Your task to perform on an android device: Open Google Maps Image 0: 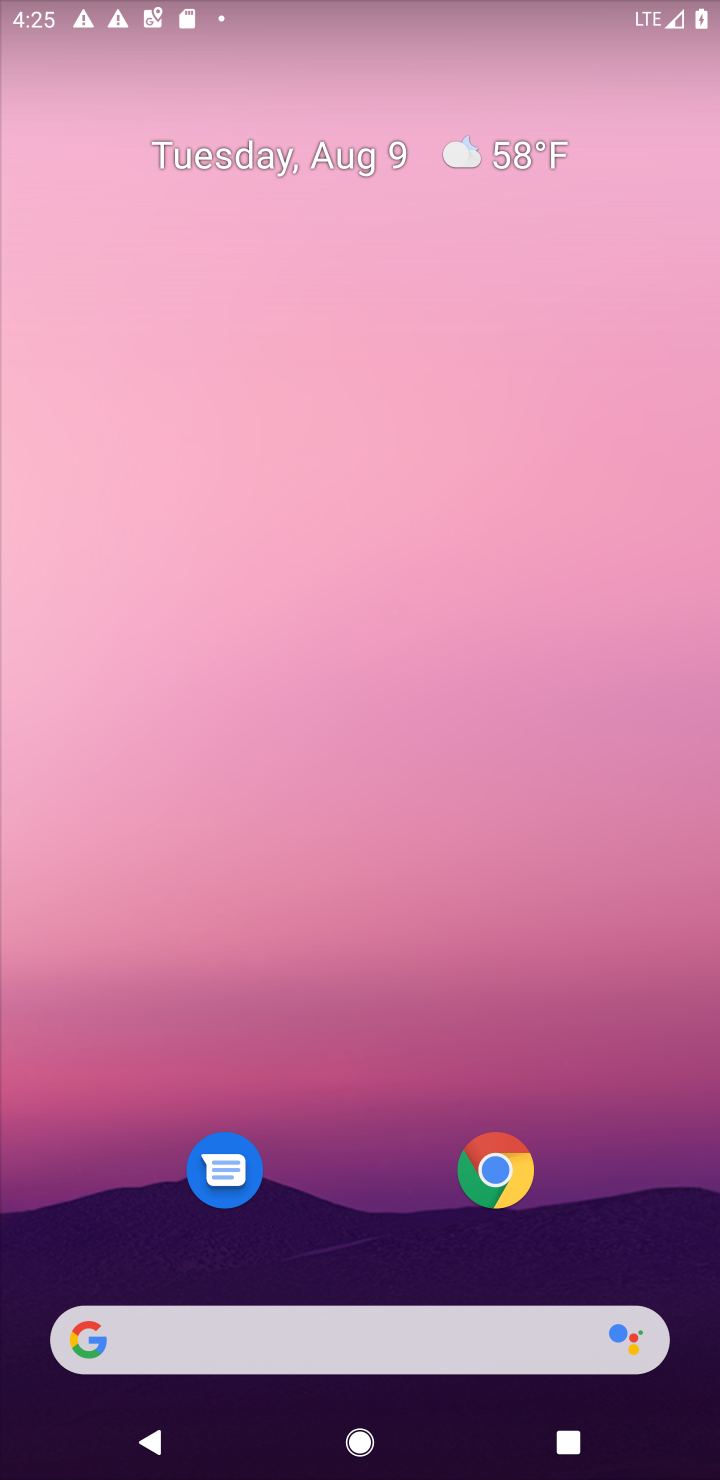
Step 0: press home button
Your task to perform on an android device: Open Google Maps Image 1: 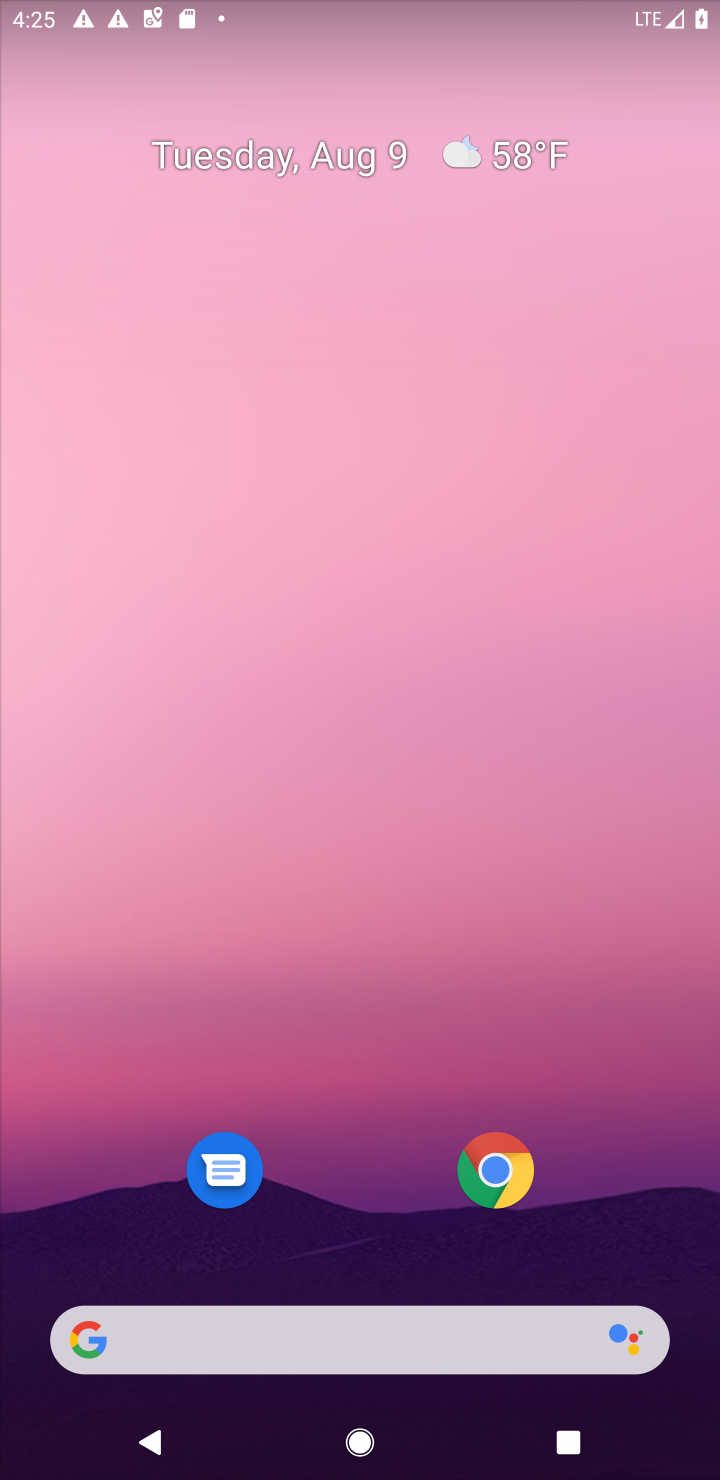
Step 1: drag from (346, 1219) to (345, 338)
Your task to perform on an android device: Open Google Maps Image 2: 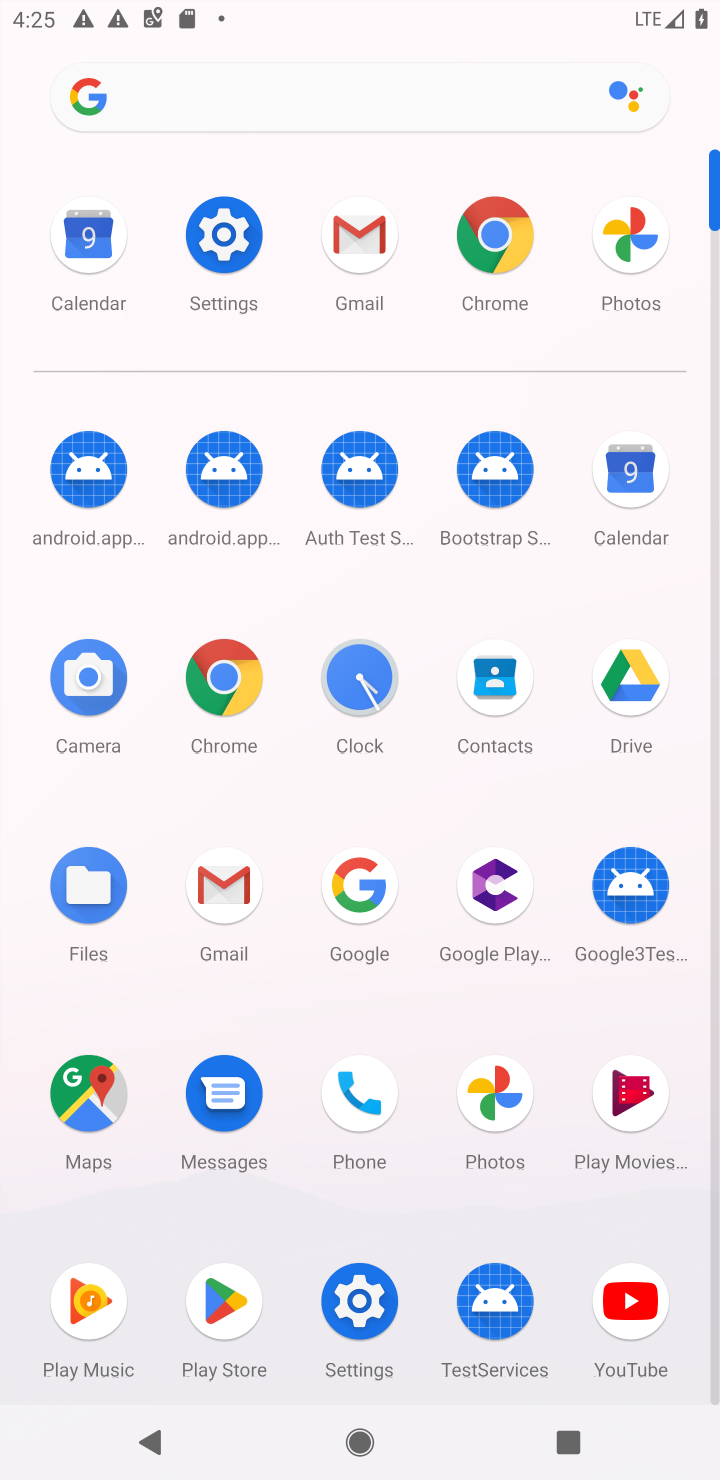
Step 2: click (77, 1096)
Your task to perform on an android device: Open Google Maps Image 3: 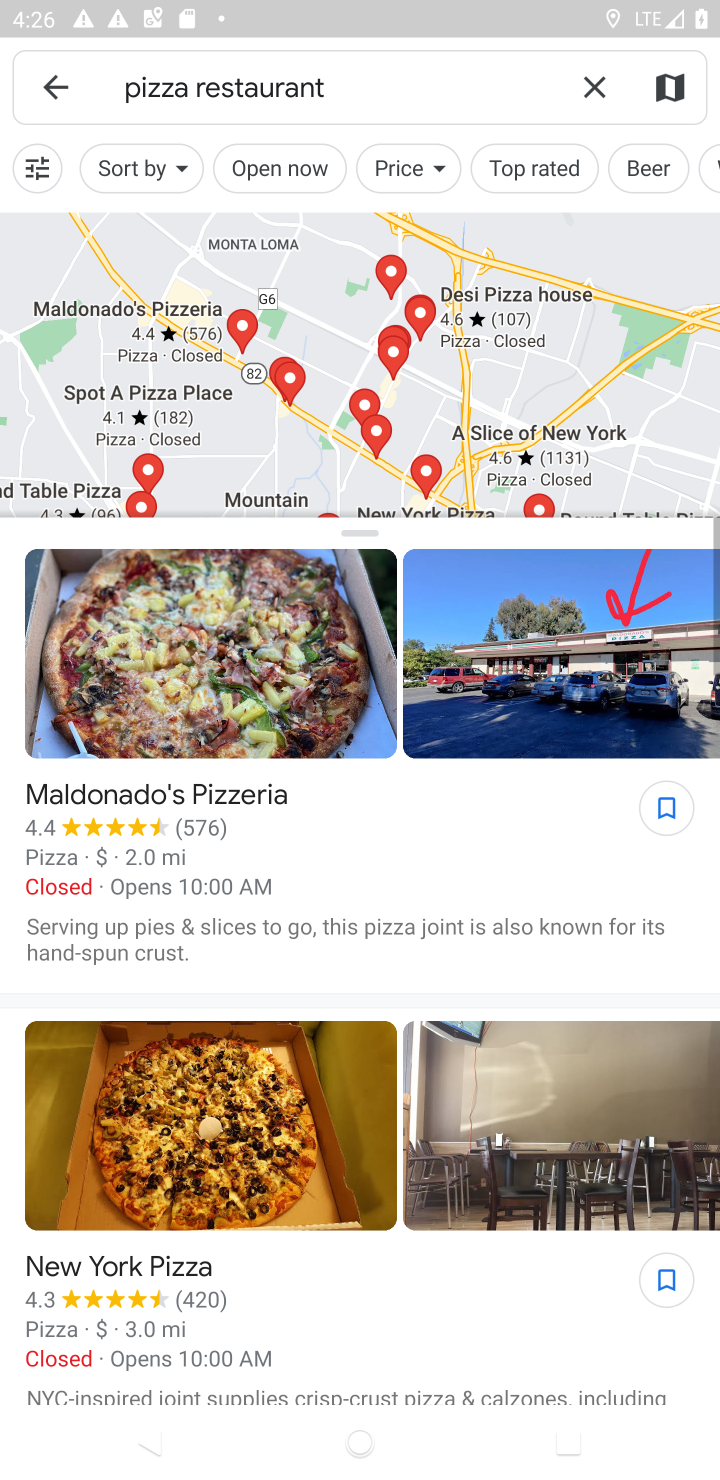
Step 3: click (52, 88)
Your task to perform on an android device: Open Google Maps Image 4: 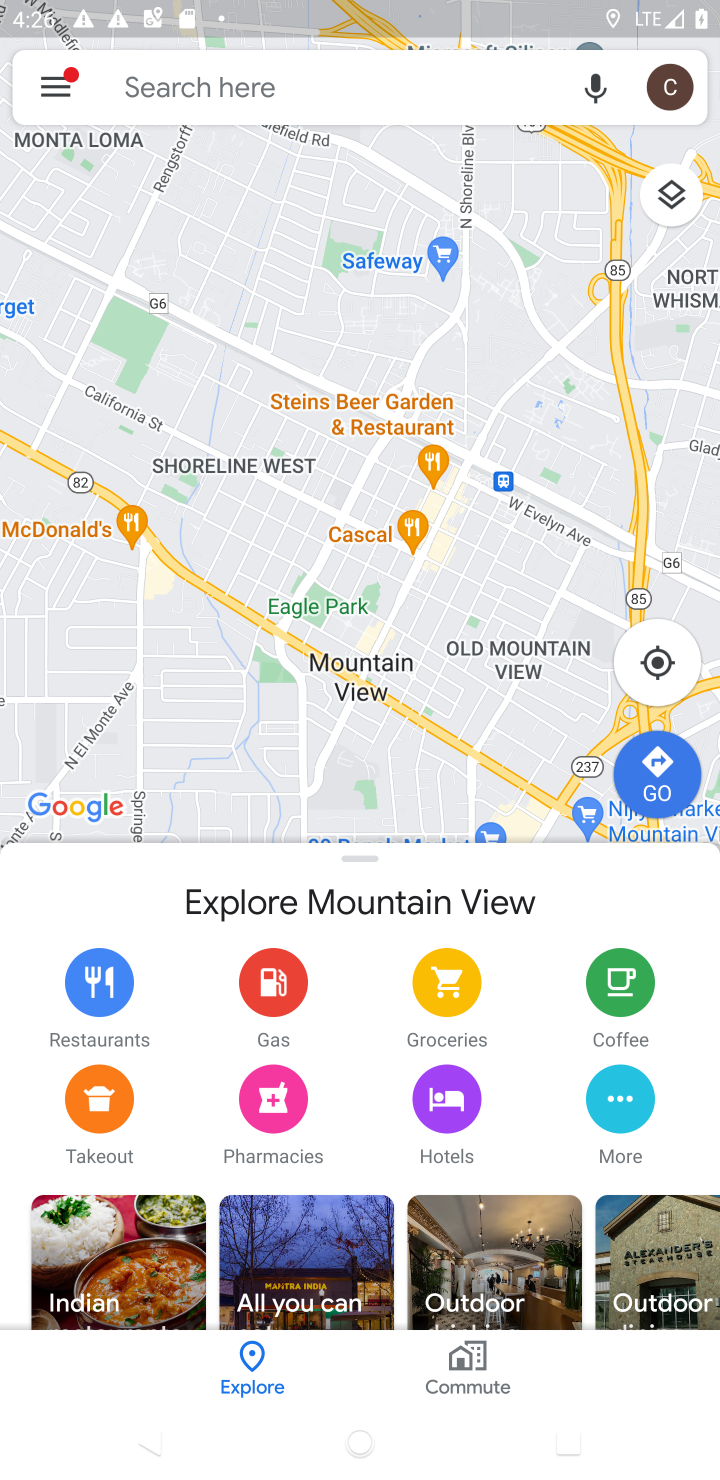
Step 4: task complete